Your task to perform on an android device: Go to Wikipedia Image 0: 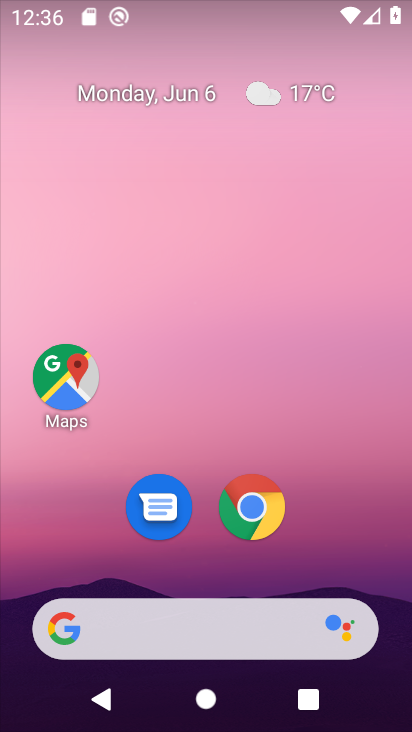
Step 0: click (254, 517)
Your task to perform on an android device: Go to Wikipedia Image 1: 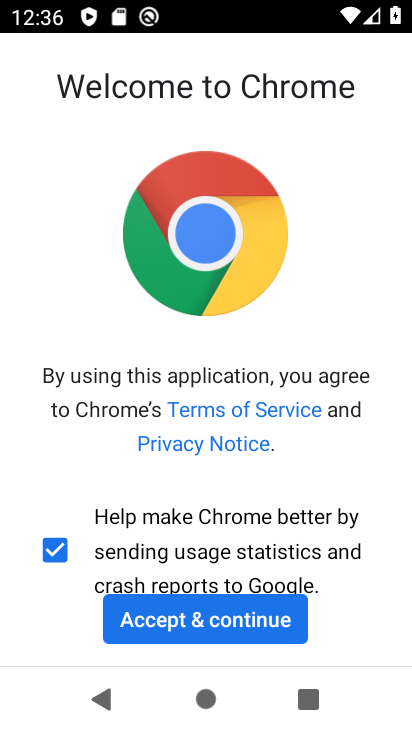
Step 1: click (282, 614)
Your task to perform on an android device: Go to Wikipedia Image 2: 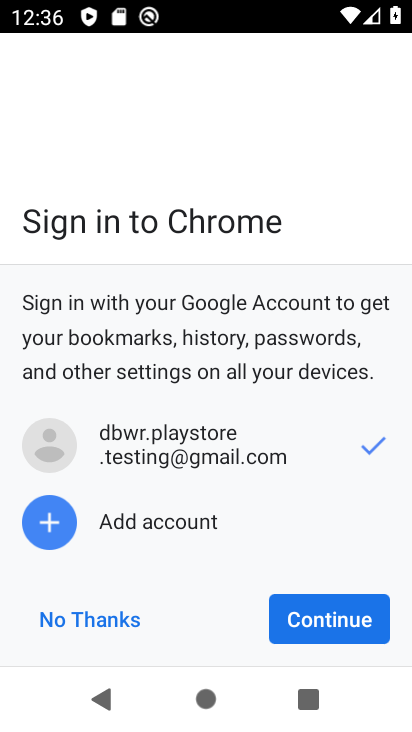
Step 2: click (303, 626)
Your task to perform on an android device: Go to Wikipedia Image 3: 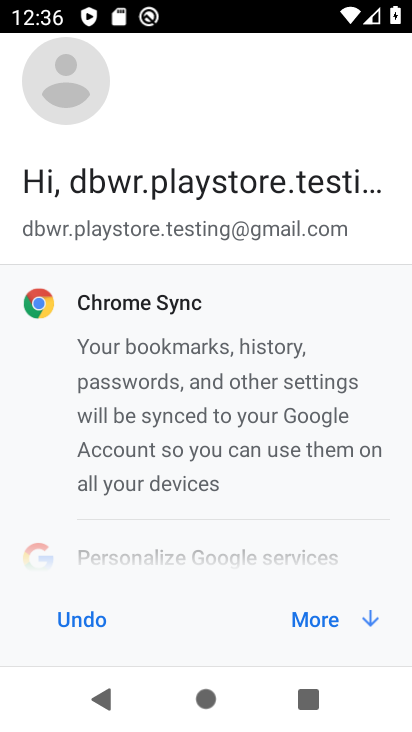
Step 3: click (325, 619)
Your task to perform on an android device: Go to Wikipedia Image 4: 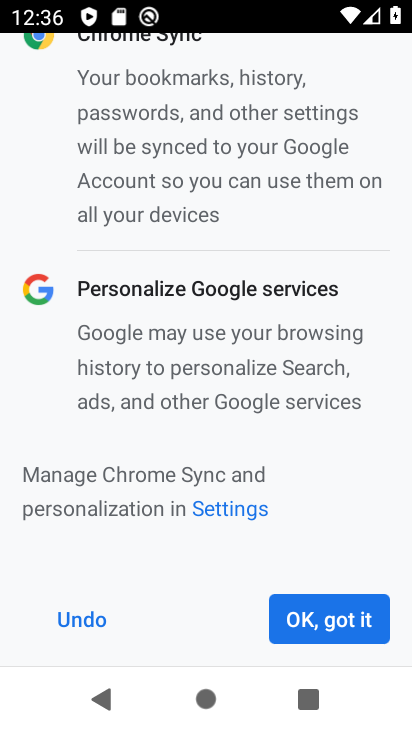
Step 4: click (326, 619)
Your task to perform on an android device: Go to Wikipedia Image 5: 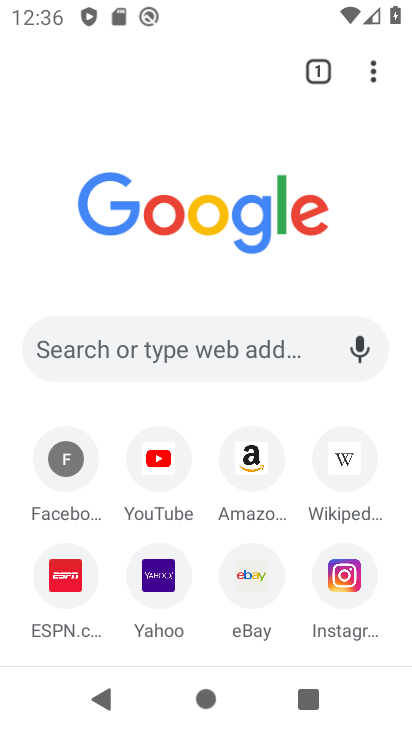
Step 5: click (350, 454)
Your task to perform on an android device: Go to Wikipedia Image 6: 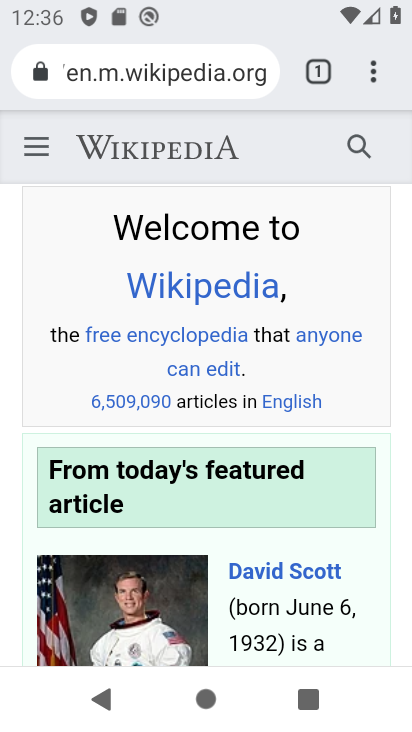
Step 6: task complete